Your task to perform on an android device: What's the weather today? Image 0: 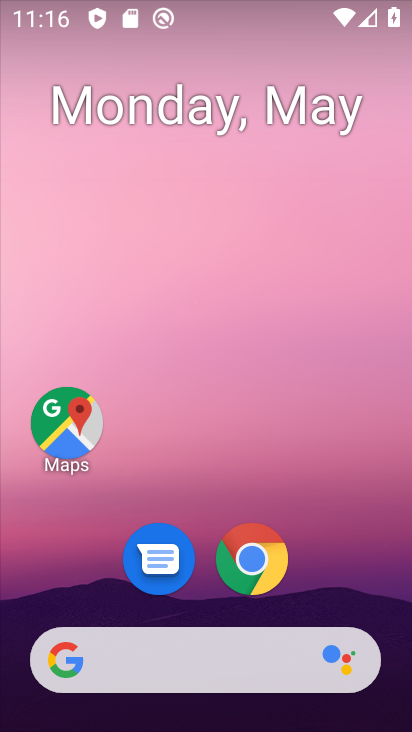
Step 0: drag from (395, 664) to (285, 45)
Your task to perform on an android device: What's the weather today? Image 1: 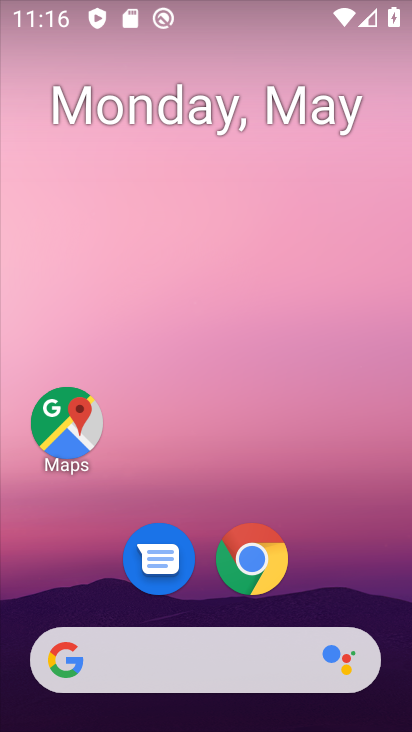
Step 1: drag from (388, 650) to (311, 49)
Your task to perform on an android device: What's the weather today? Image 2: 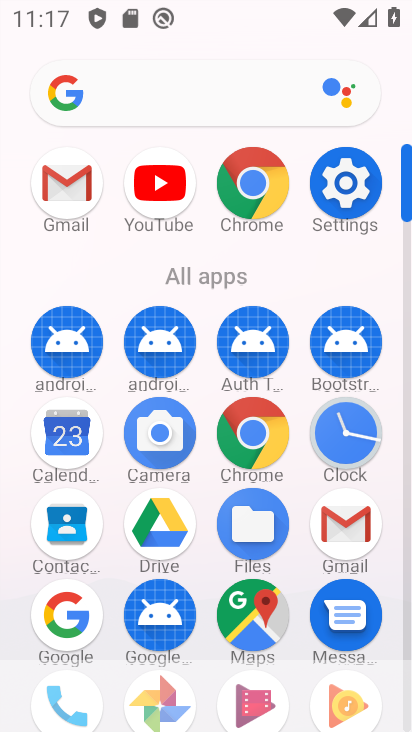
Step 2: click (63, 586)
Your task to perform on an android device: What's the weather today? Image 3: 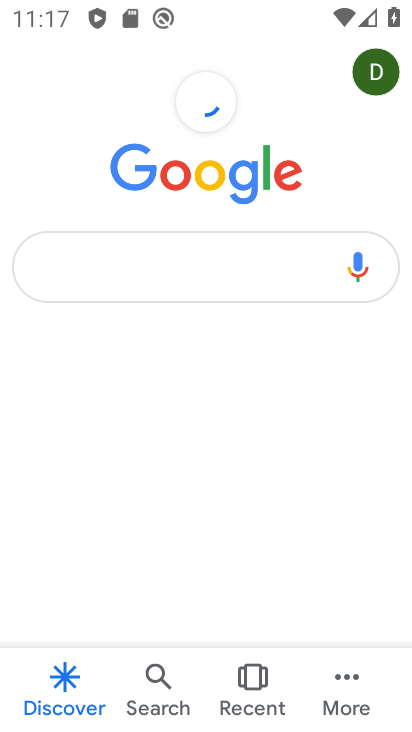
Step 3: click (191, 280)
Your task to perform on an android device: What's the weather today? Image 4: 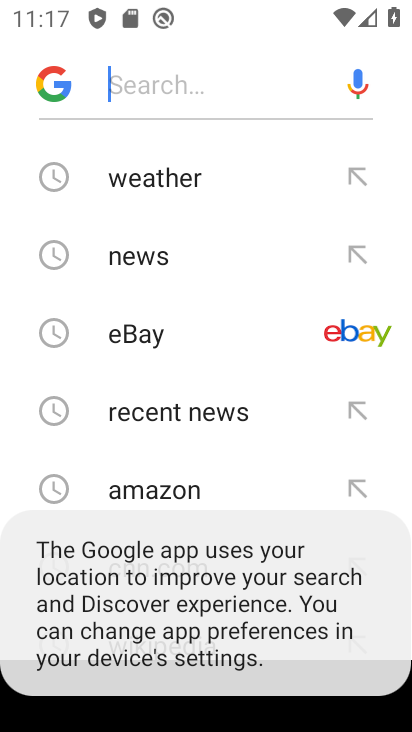
Step 4: drag from (190, 431) to (257, 152)
Your task to perform on an android device: What's the weather today? Image 5: 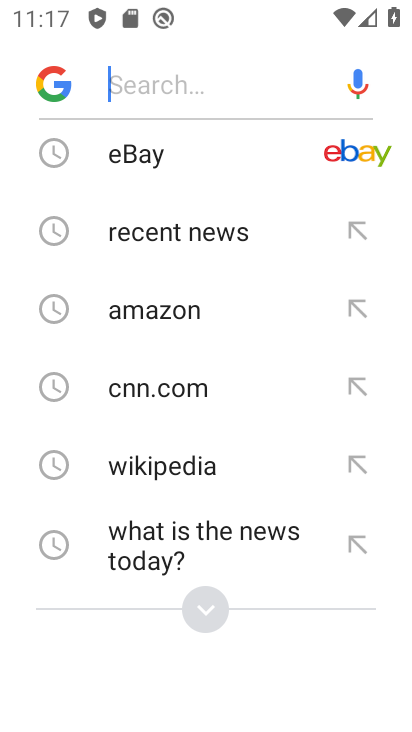
Step 5: click (211, 593)
Your task to perform on an android device: What's the weather today? Image 6: 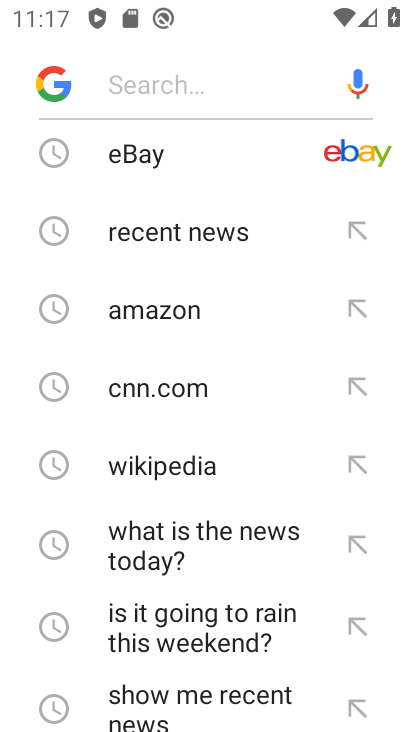
Step 6: drag from (211, 593) to (224, 115)
Your task to perform on an android device: What's the weather today? Image 7: 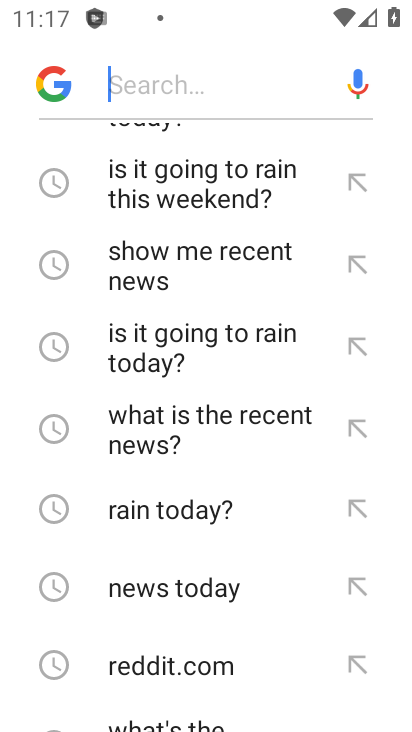
Step 7: drag from (202, 502) to (226, 154)
Your task to perform on an android device: What's the weather today? Image 8: 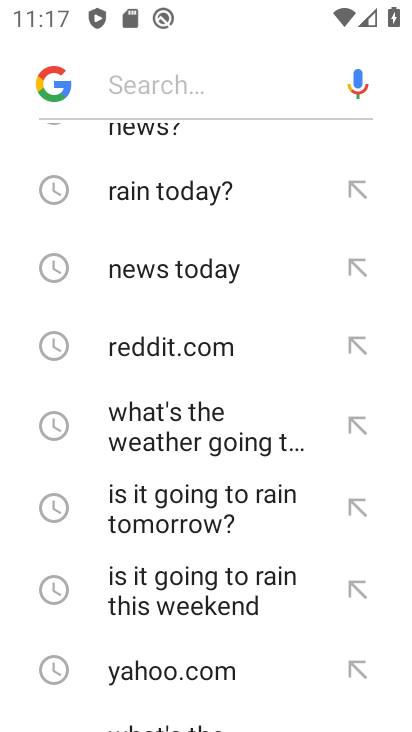
Step 8: drag from (218, 554) to (270, 217)
Your task to perform on an android device: What's the weather today? Image 9: 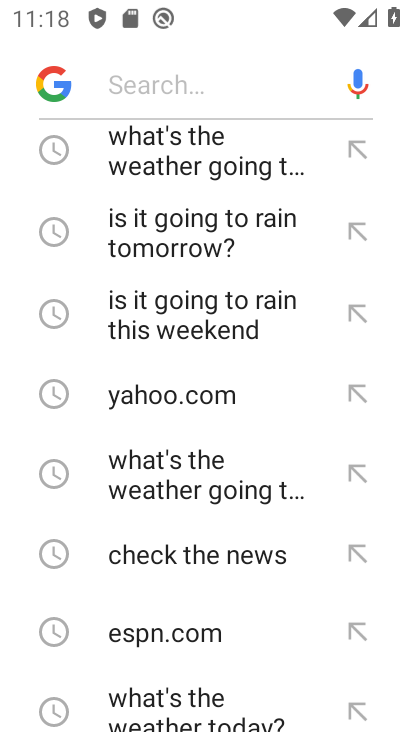
Step 9: drag from (194, 571) to (252, 258)
Your task to perform on an android device: What's the weather today? Image 10: 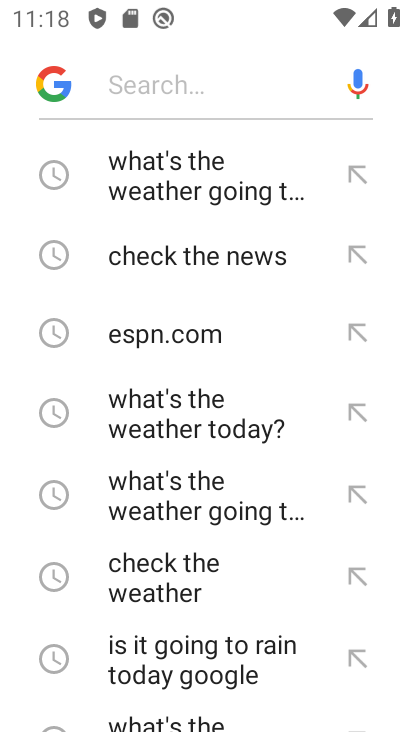
Step 10: click (229, 424)
Your task to perform on an android device: What's the weather today? Image 11: 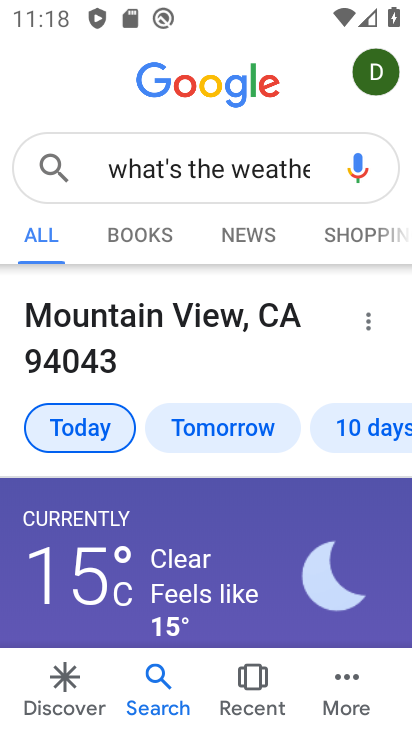
Step 11: task complete